Your task to perform on an android device: Search for seafood restaurants on Google Maps Image 0: 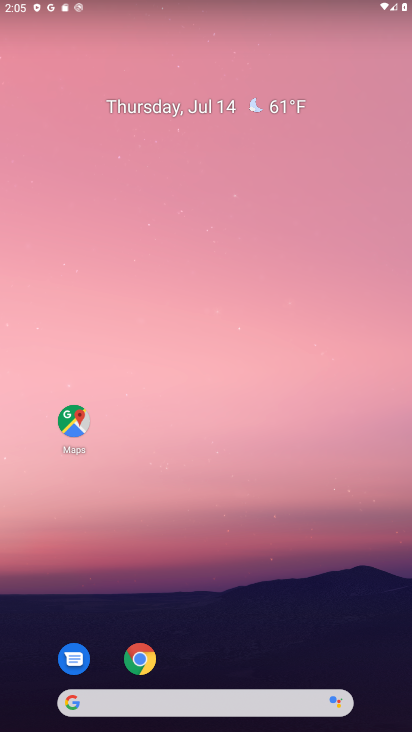
Step 0: click (62, 416)
Your task to perform on an android device: Search for seafood restaurants on Google Maps Image 1: 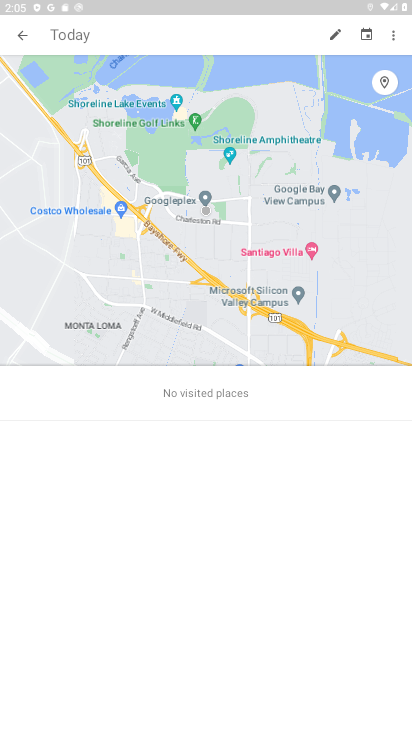
Step 1: click (17, 31)
Your task to perform on an android device: Search for seafood restaurants on Google Maps Image 2: 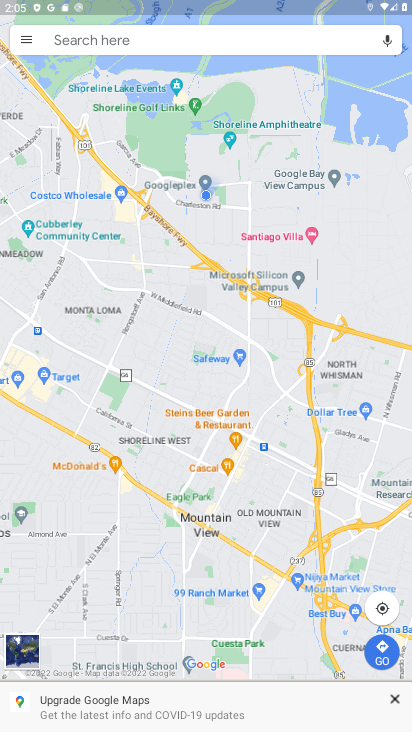
Step 2: click (93, 44)
Your task to perform on an android device: Search for seafood restaurants on Google Maps Image 3: 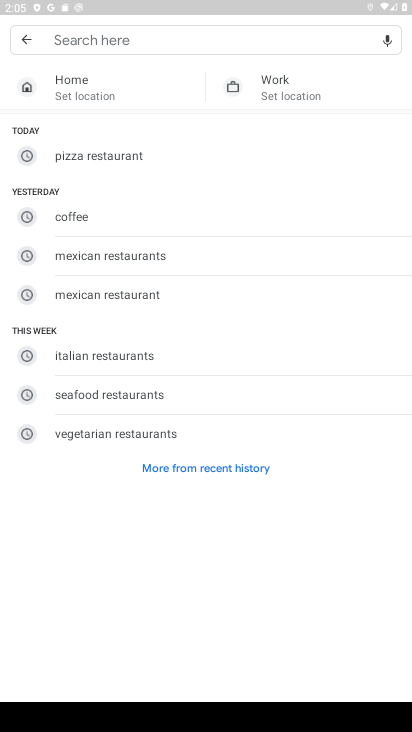
Step 3: type "seafood restaurants"
Your task to perform on an android device: Search for seafood restaurants on Google Maps Image 4: 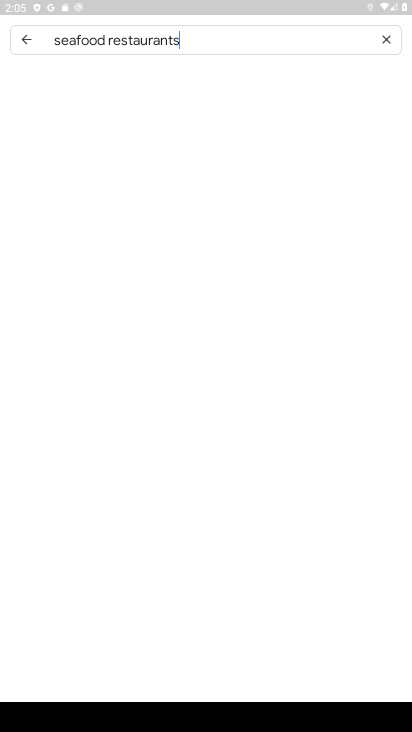
Step 4: type ""
Your task to perform on an android device: Search for seafood restaurants on Google Maps Image 5: 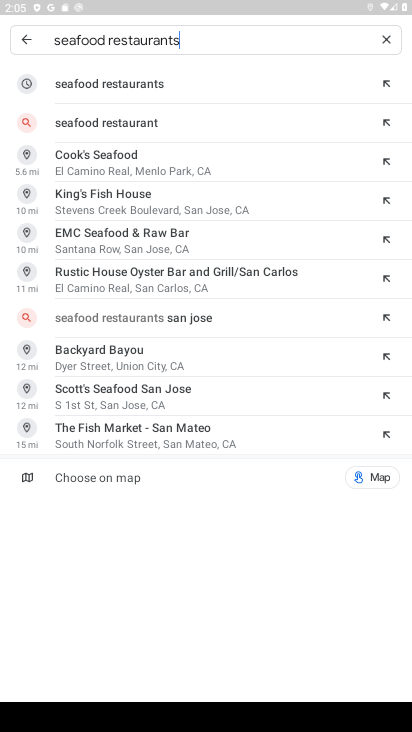
Step 5: click (138, 86)
Your task to perform on an android device: Search for seafood restaurants on Google Maps Image 6: 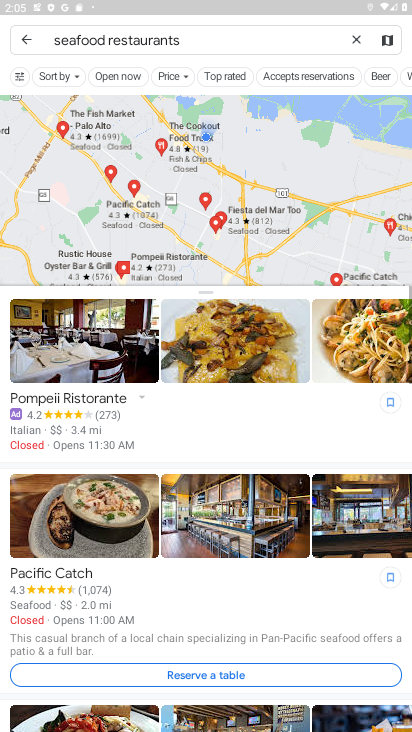
Step 6: task complete